Your task to perform on an android device: allow notifications from all sites in the chrome app Image 0: 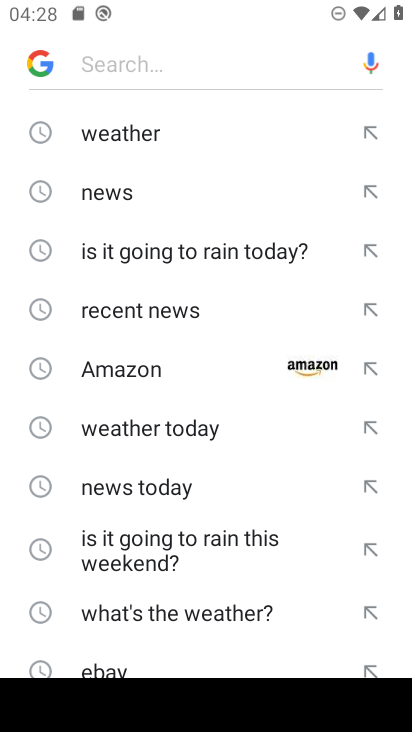
Step 0: press home button
Your task to perform on an android device: allow notifications from all sites in the chrome app Image 1: 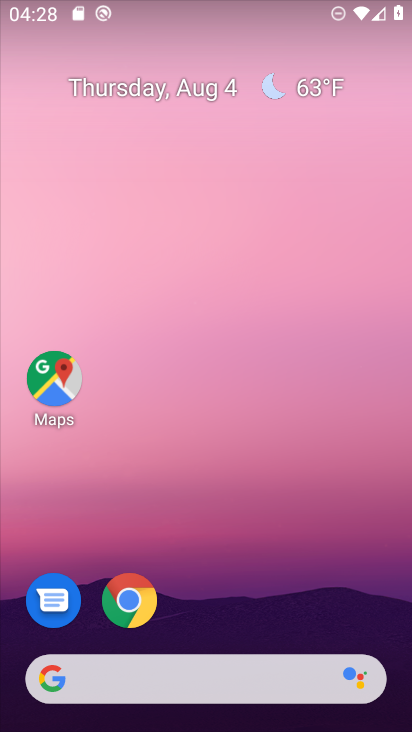
Step 1: drag from (207, 589) to (256, 109)
Your task to perform on an android device: allow notifications from all sites in the chrome app Image 2: 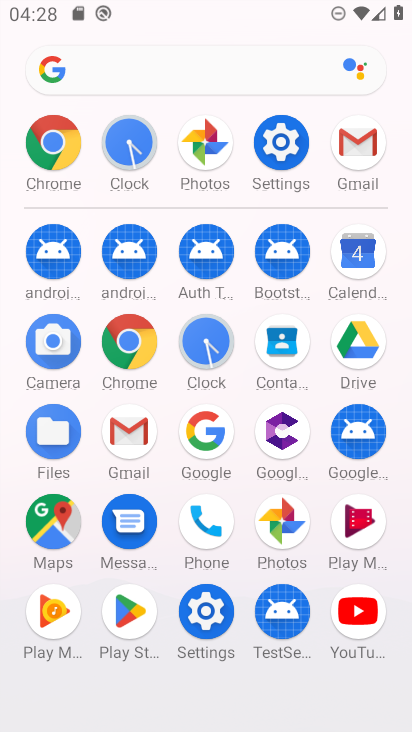
Step 2: click (132, 337)
Your task to perform on an android device: allow notifications from all sites in the chrome app Image 3: 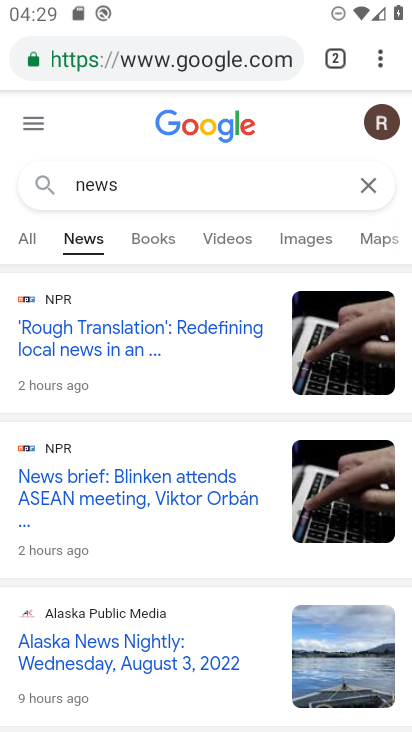
Step 3: drag from (379, 52) to (220, 630)
Your task to perform on an android device: allow notifications from all sites in the chrome app Image 4: 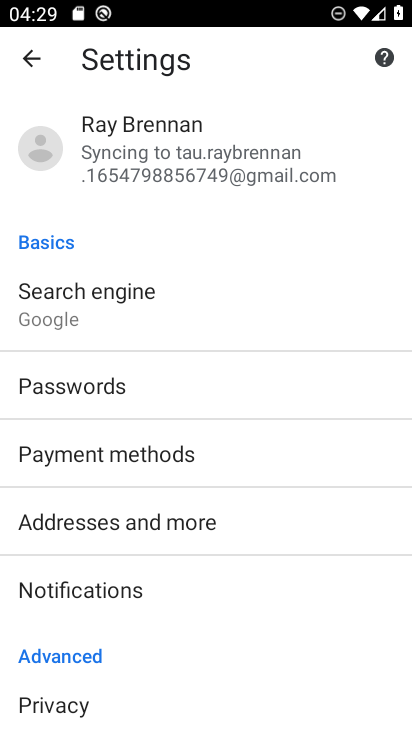
Step 4: drag from (196, 660) to (210, 368)
Your task to perform on an android device: allow notifications from all sites in the chrome app Image 5: 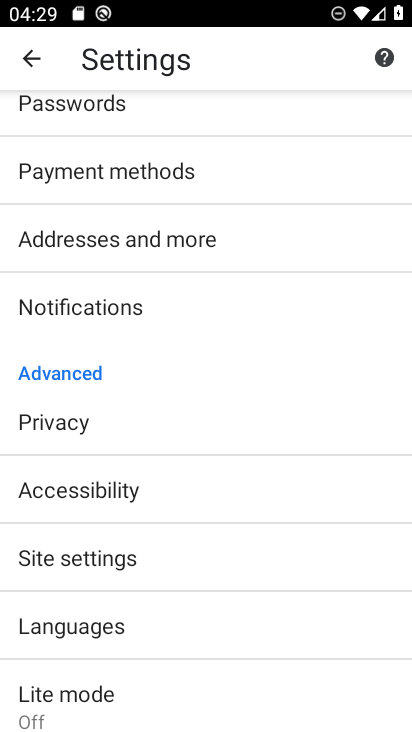
Step 5: click (128, 308)
Your task to perform on an android device: allow notifications from all sites in the chrome app Image 6: 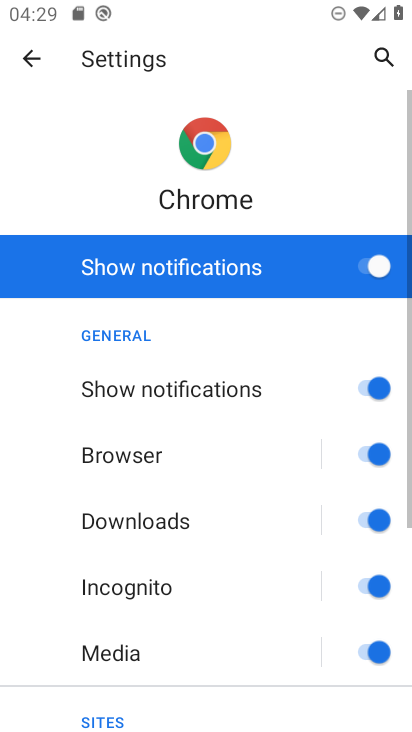
Step 6: task complete